Your task to perform on an android device: Open Google Chrome and open the bookmarks view Image 0: 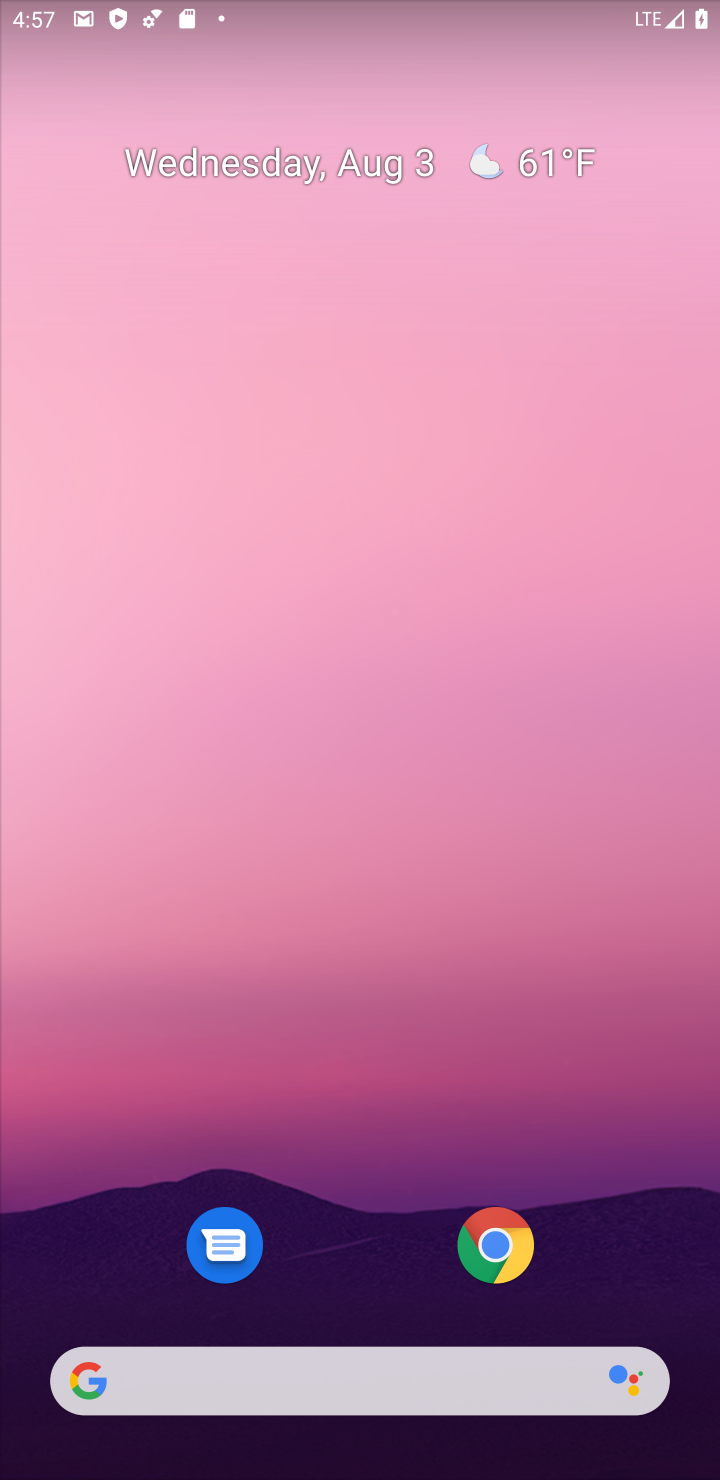
Step 0: press back button
Your task to perform on an android device: Open Google Chrome and open the bookmarks view Image 1: 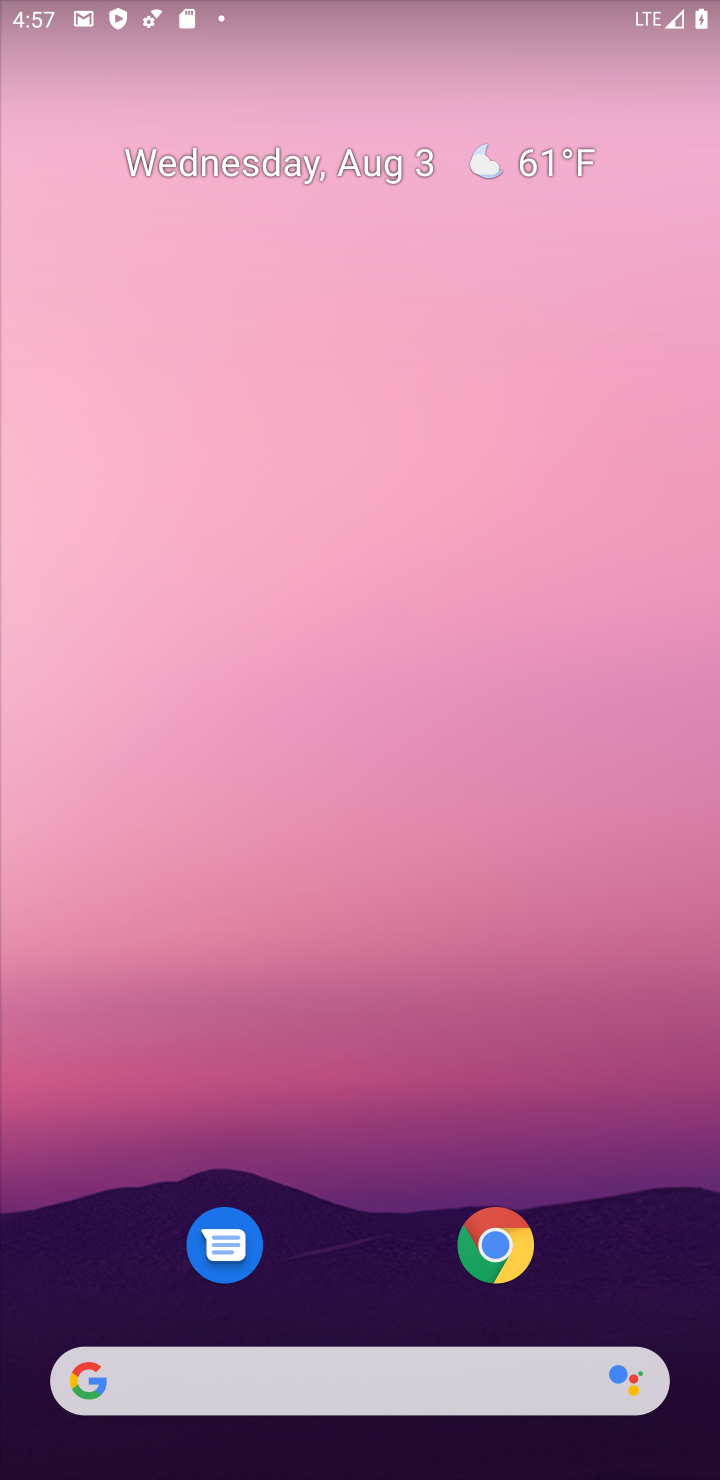
Step 1: click (485, 1255)
Your task to perform on an android device: Open Google Chrome and open the bookmarks view Image 2: 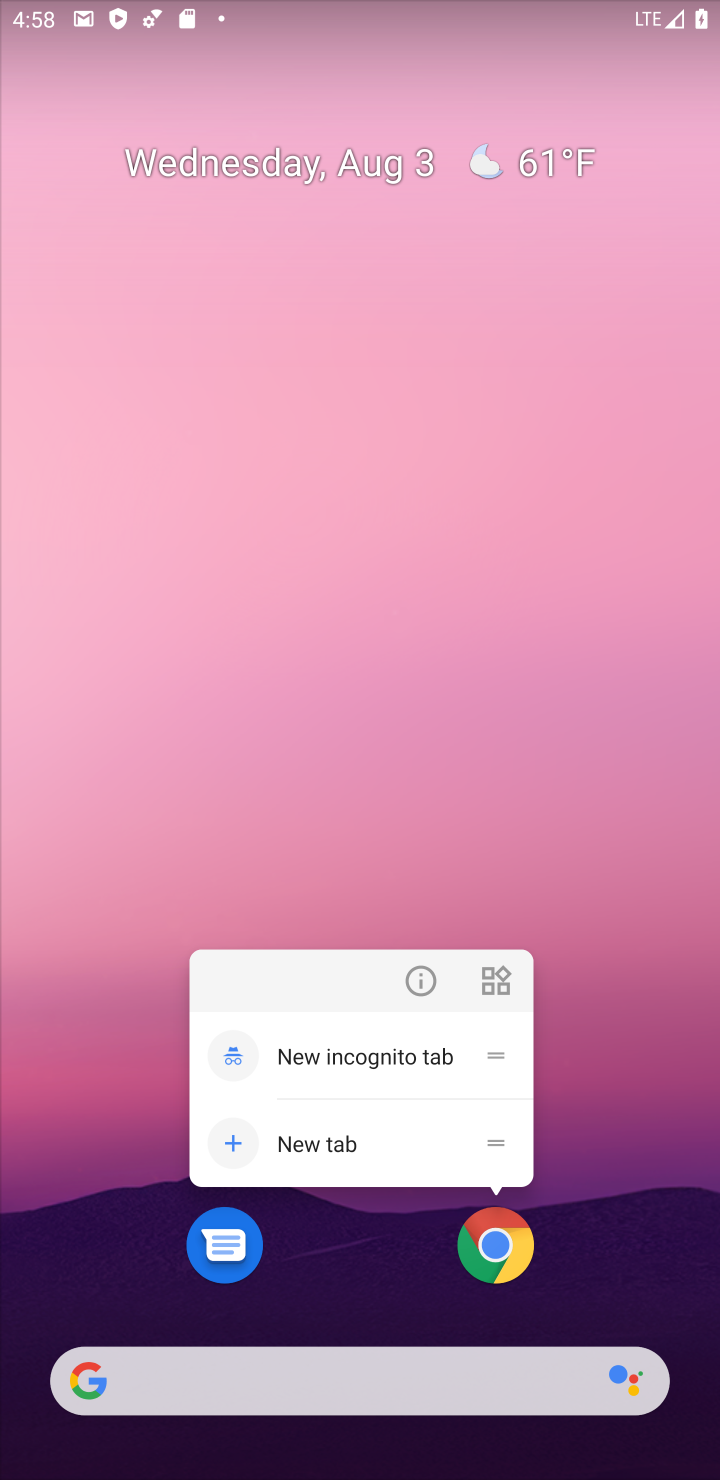
Step 2: click (481, 1280)
Your task to perform on an android device: Open Google Chrome and open the bookmarks view Image 3: 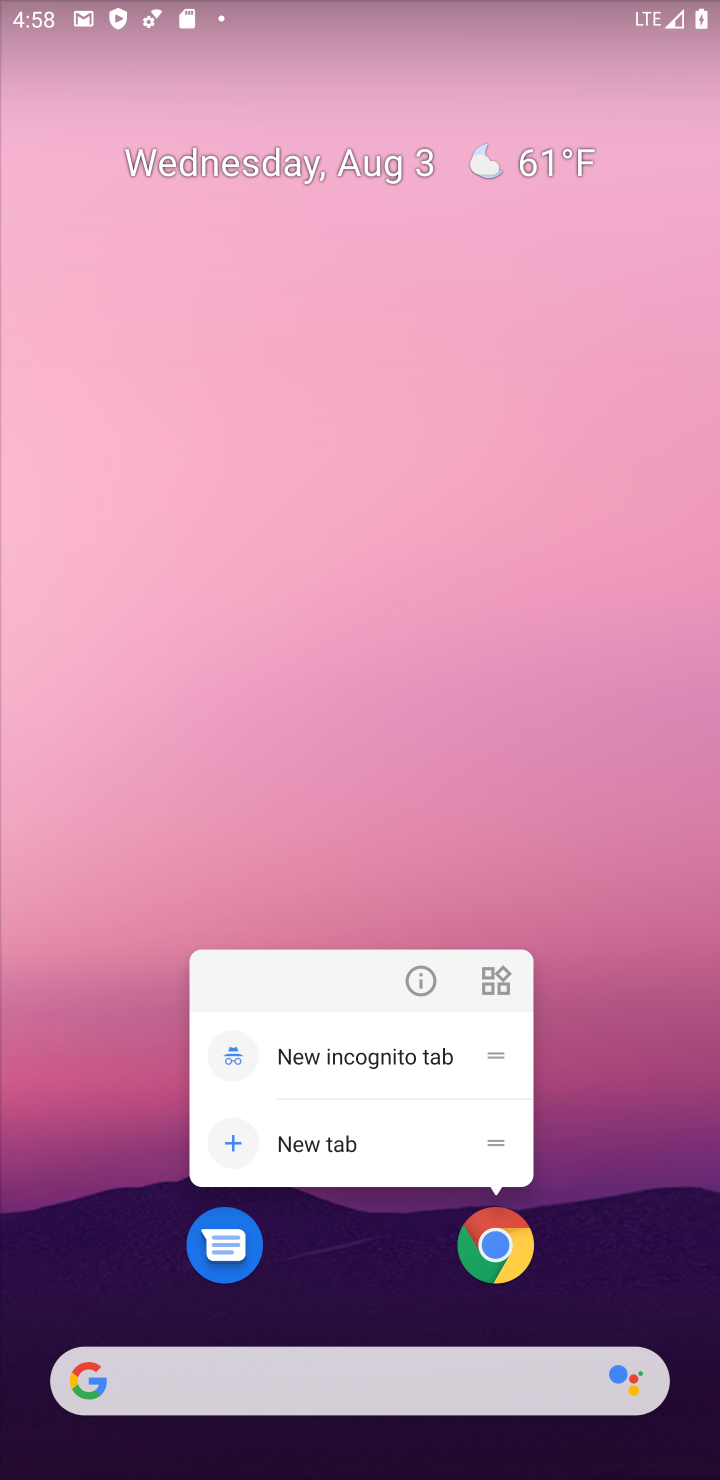
Step 3: click (481, 1280)
Your task to perform on an android device: Open Google Chrome and open the bookmarks view Image 4: 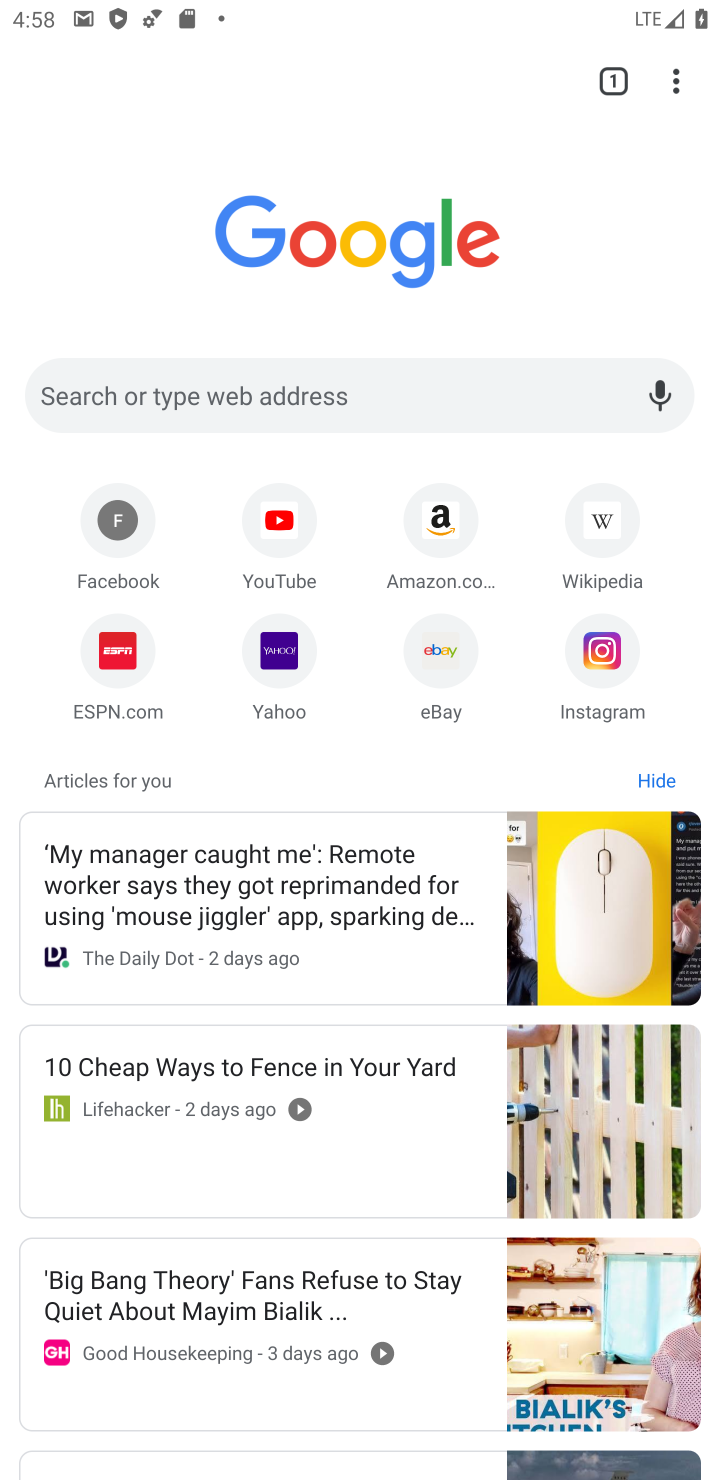
Step 4: click (698, 80)
Your task to perform on an android device: Open Google Chrome and open the bookmarks view Image 5: 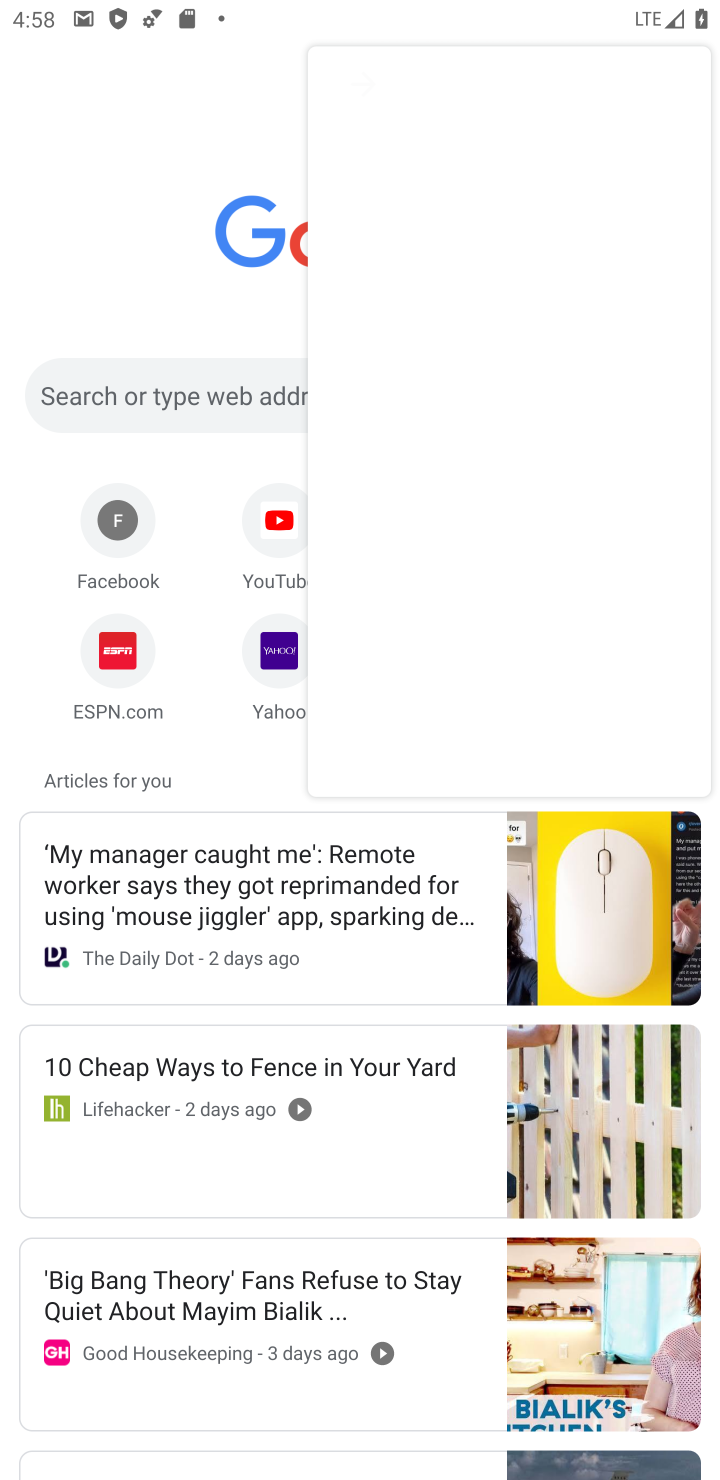
Step 5: drag from (682, 80) to (464, 314)
Your task to perform on an android device: Open Google Chrome and open the bookmarks view Image 6: 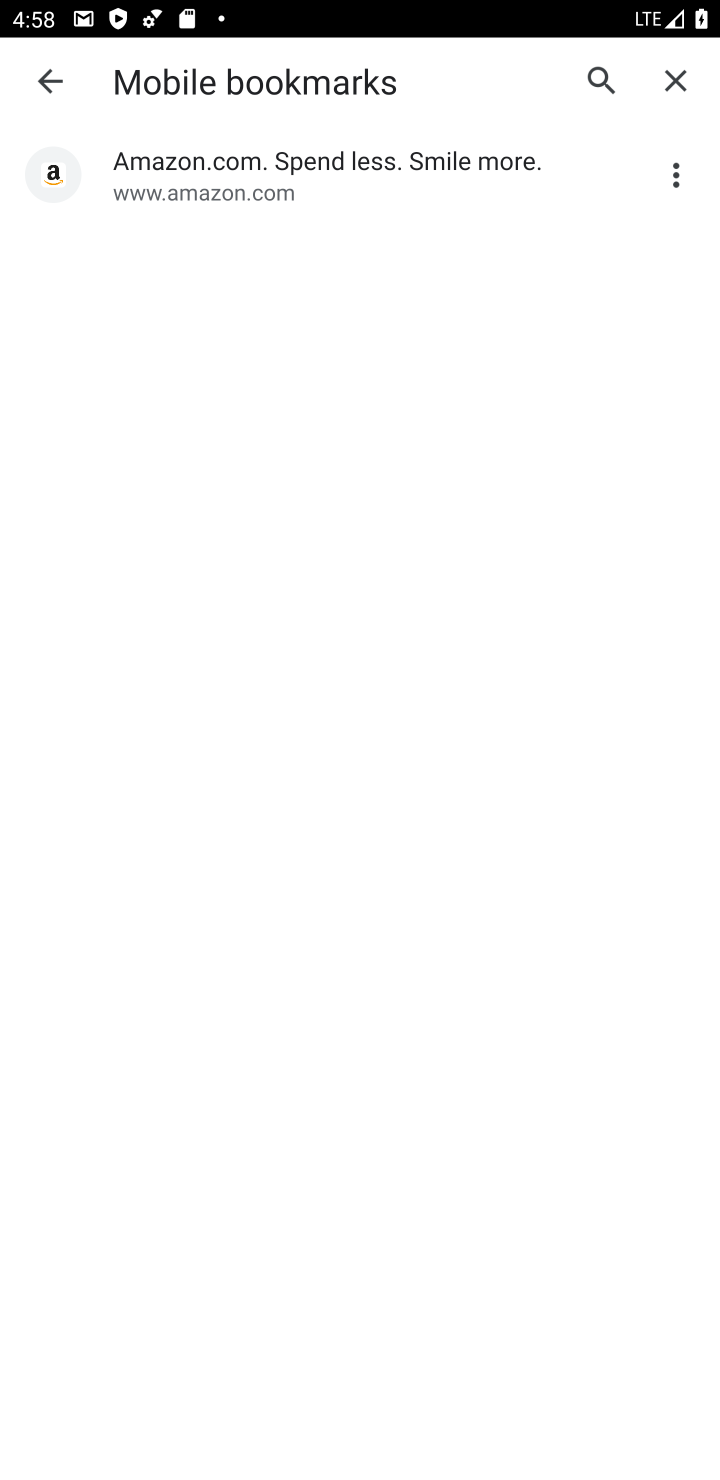
Step 6: click (405, 187)
Your task to perform on an android device: Open Google Chrome and open the bookmarks view Image 7: 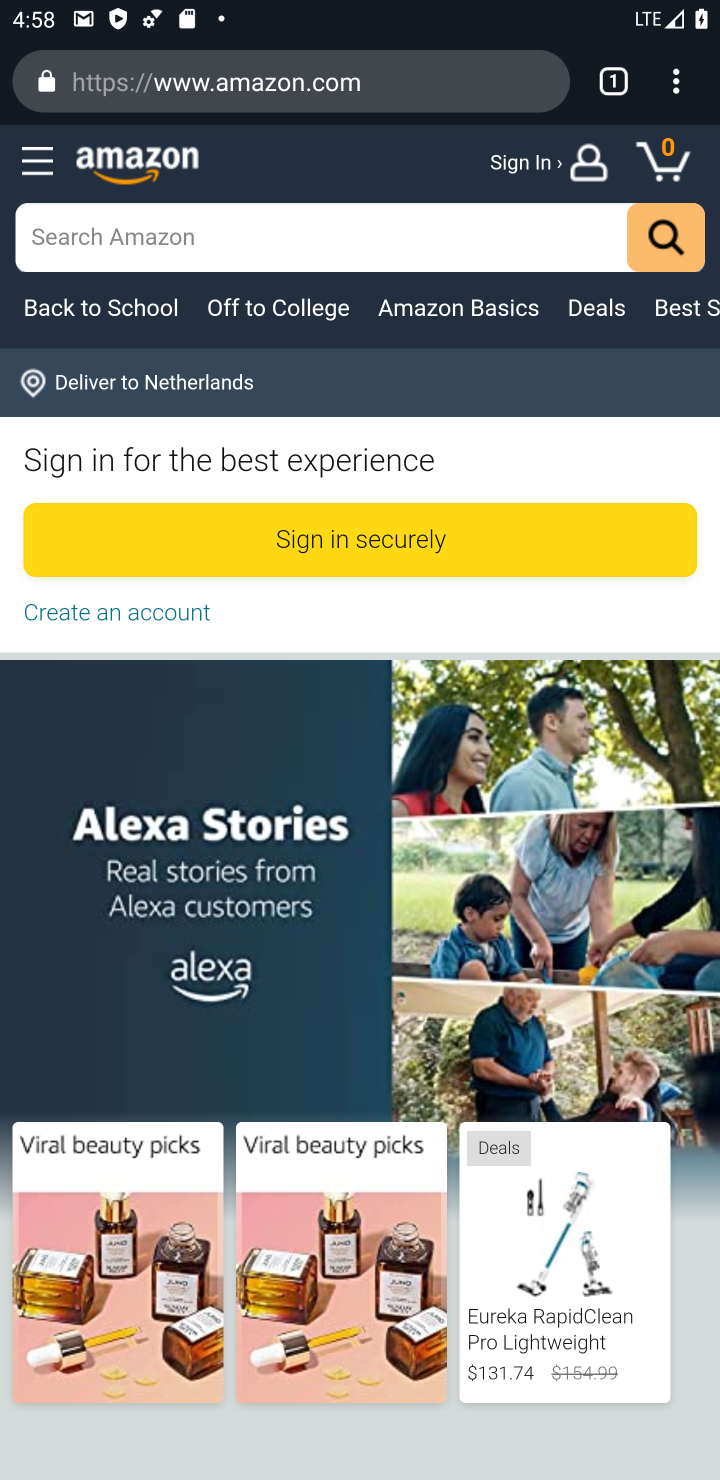
Step 7: task complete